Your task to perform on an android device: Open location settings Image 0: 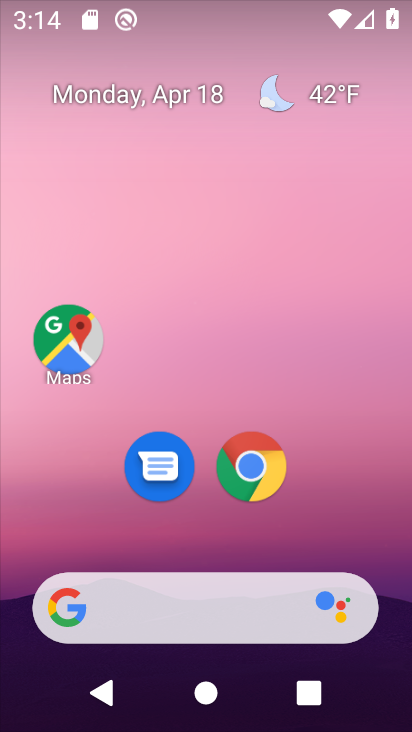
Step 0: drag from (321, 498) to (325, 136)
Your task to perform on an android device: Open location settings Image 1: 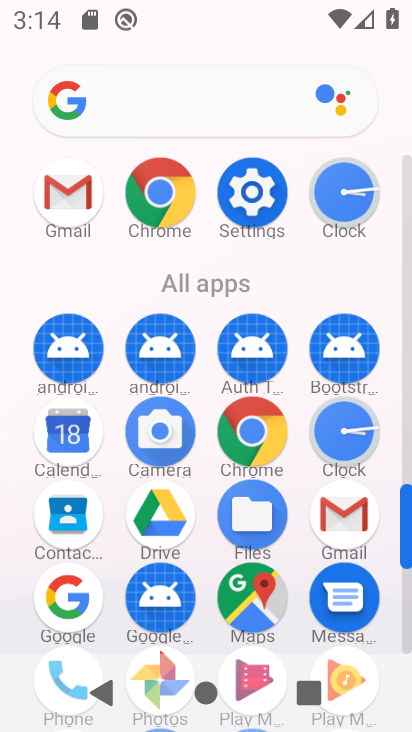
Step 1: click (259, 202)
Your task to perform on an android device: Open location settings Image 2: 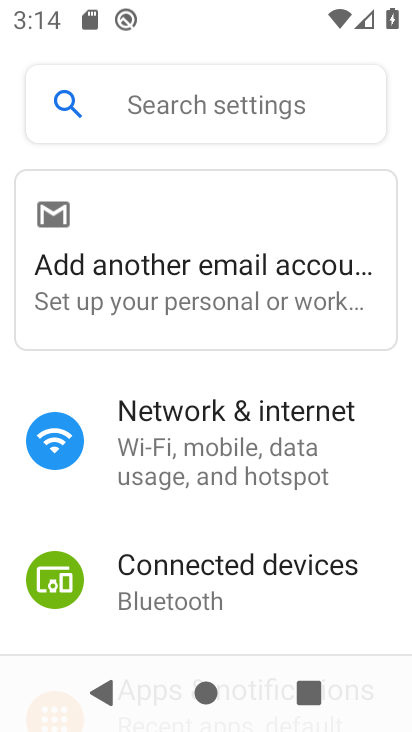
Step 2: drag from (277, 610) to (284, 270)
Your task to perform on an android device: Open location settings Image 3: 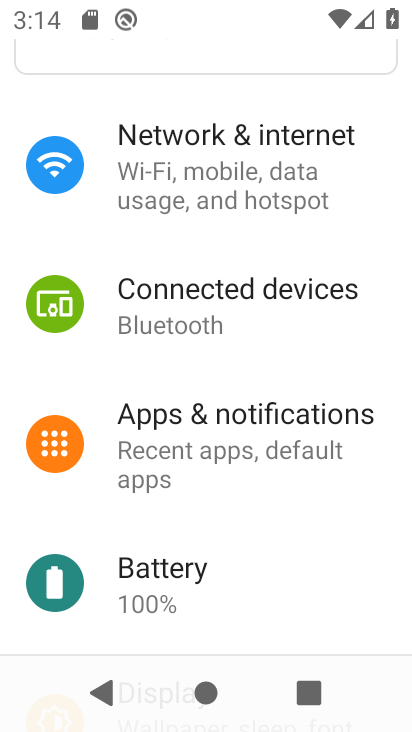
Step 3: drag from (226, 621) to (261, 249)
Your task to perform on an android device: Open location settings Image 4: 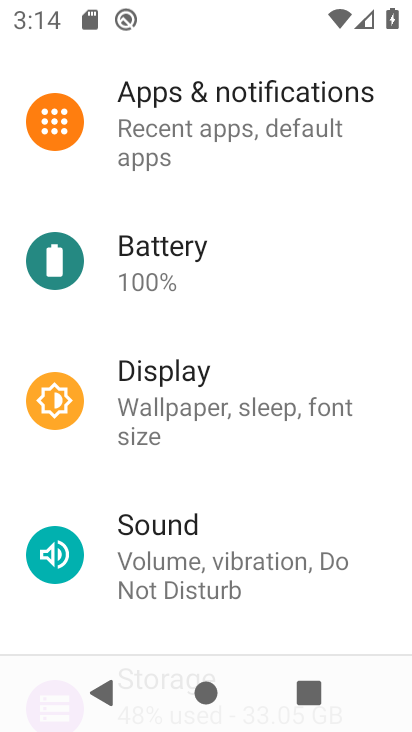
Step 4: drag from (307, 594) to (332, 251)
Your task to perform on an android device: Open location settings Image 5: 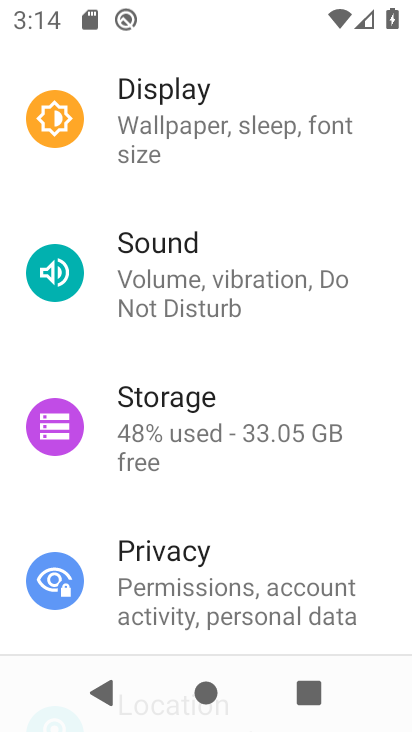
Step 5: drag from (303, 625) to (346, 299)
Your task to perform on an android device: Open location settings Image 6: 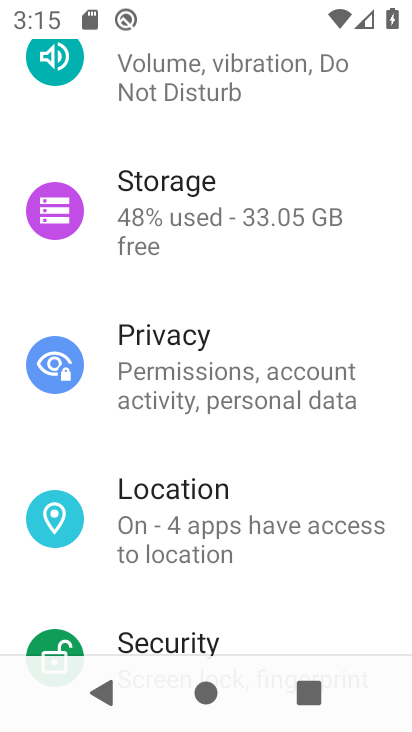
Step 6: click (266, 531)
Your task to perform on an android device: Open location settings Image 7: 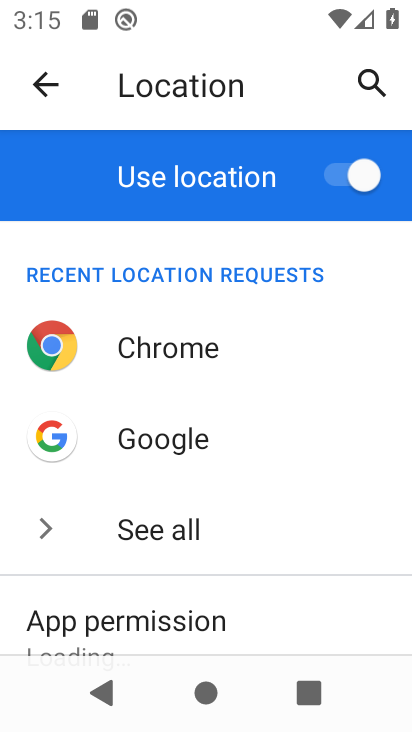
Step 7: task complete